Your task to perform on an android device: choose inbox layout in the gmail app Image 0: 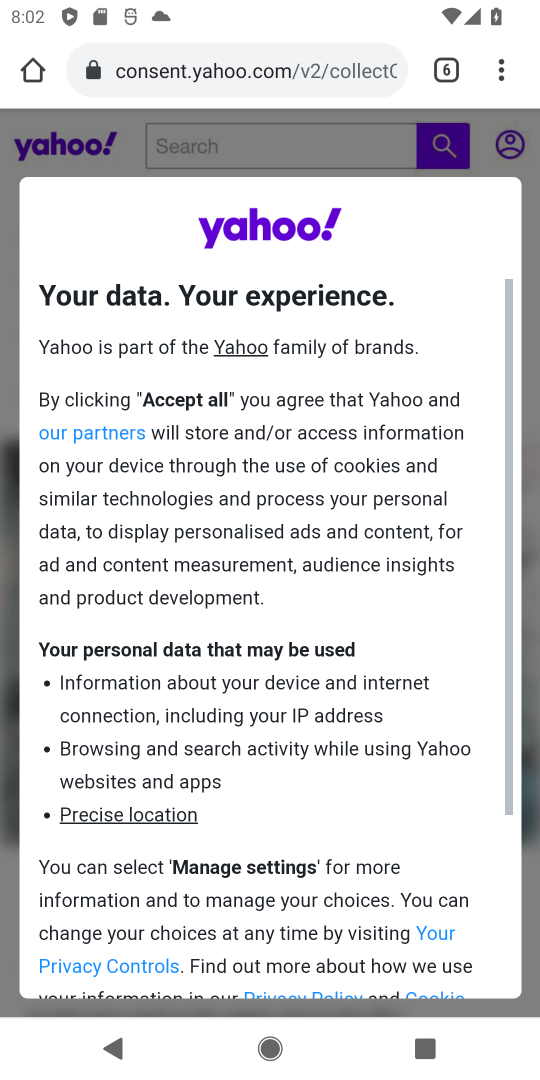
Step 0: press home button
Your task to perform on an android device: choose inbox layout in the gmail app Image 1: 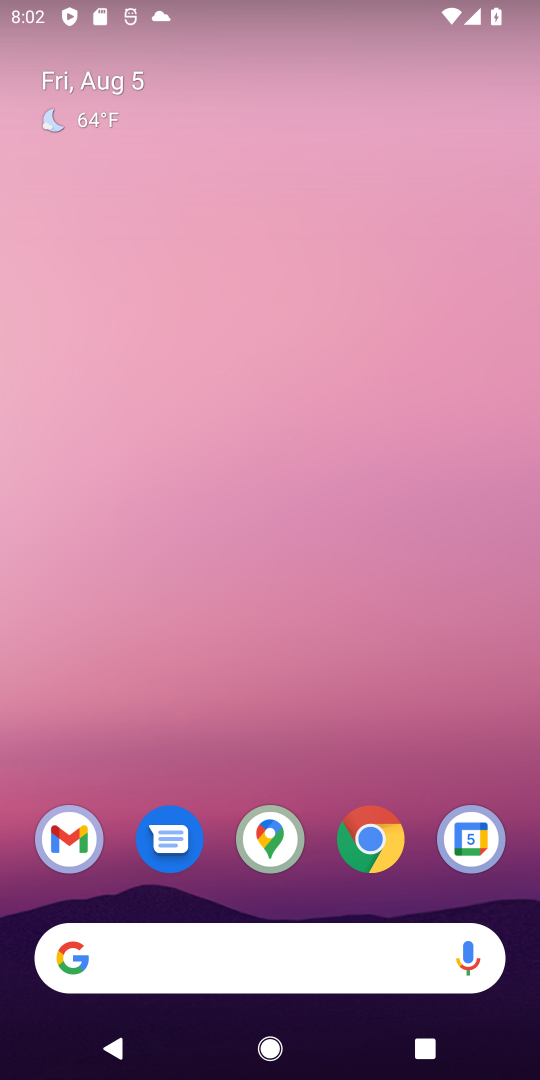
Step 1: drag from (318, 911) to (284, 137)
Your task to perform on an android device: choose inbox layout in the gmail app Image 2: 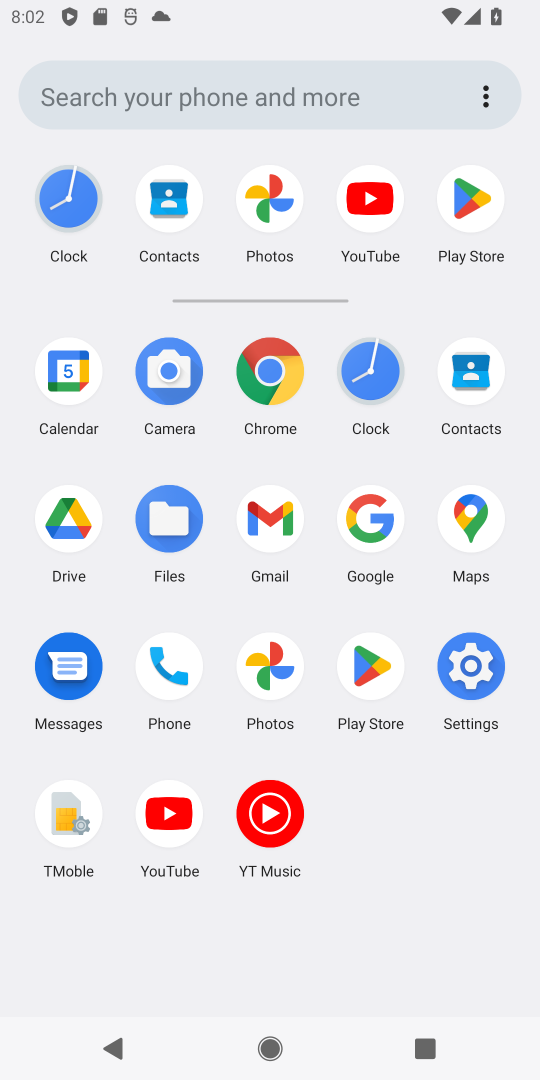
Step 2: click (267, 533)
Your task to perform on an android device: choose inbox layout in the gmail app Image 3: 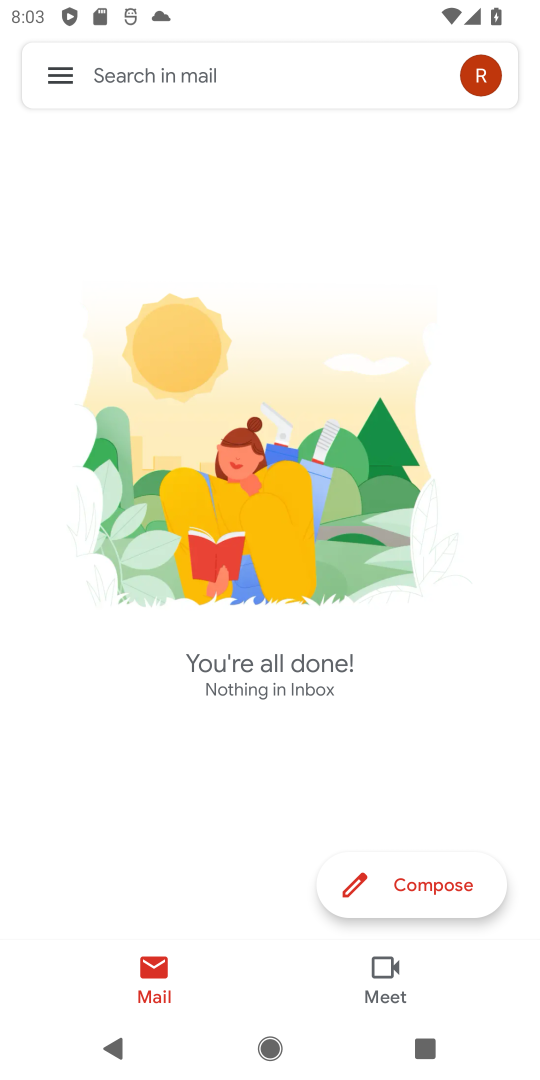
Step 3: click (59, 76)
Your task to perform on an android device: choose inbox layout in the gmail app Image 4: 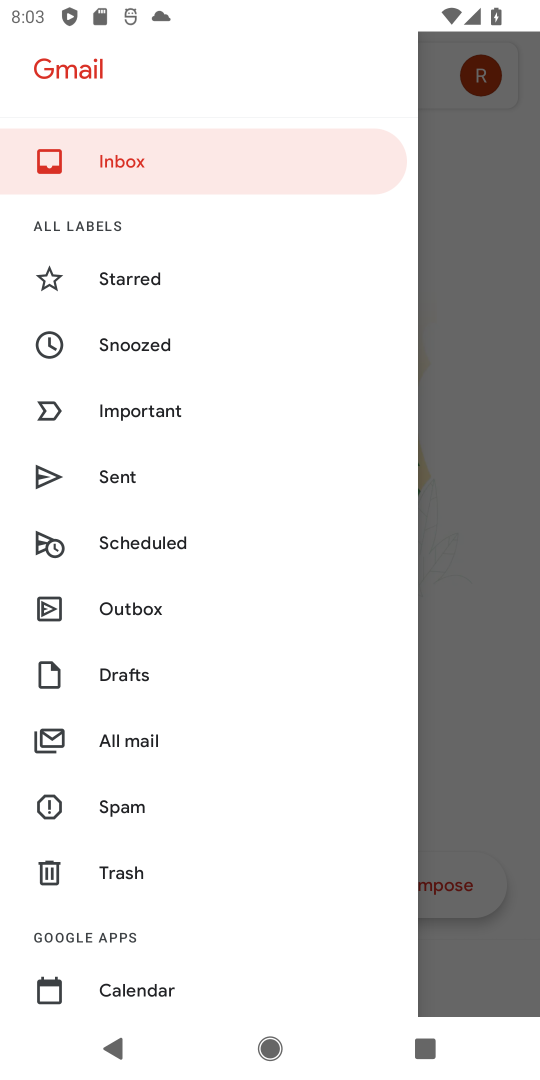
Step 4: drag from (116, 936) to (113, 430)
Your task to perform on an android device: choose inbox layout in the gmail app Image 5: 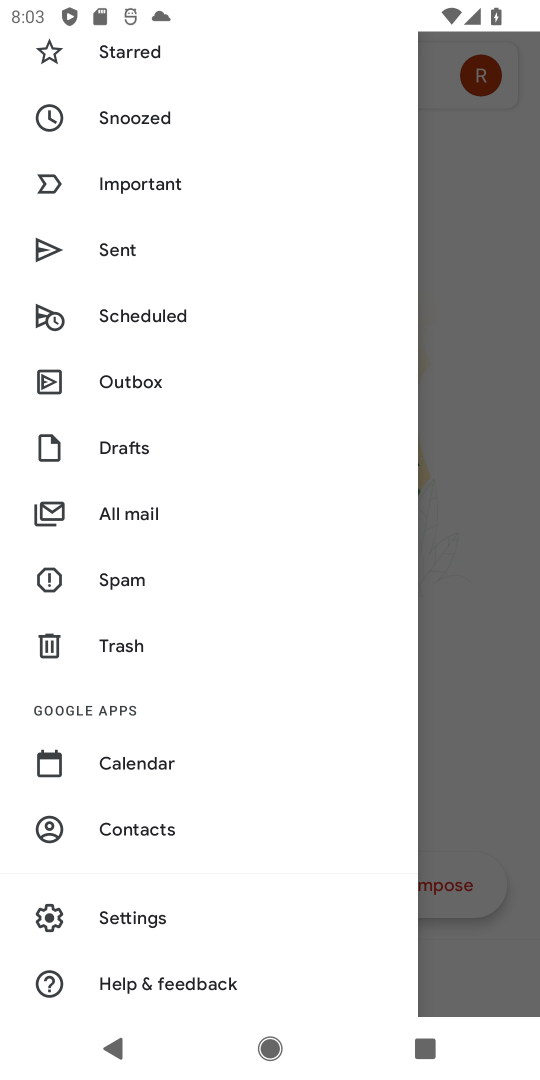
Step 5: click (171, 912)
Your task to perform on an android device: choose inbox layout in the gmail app Image 6: 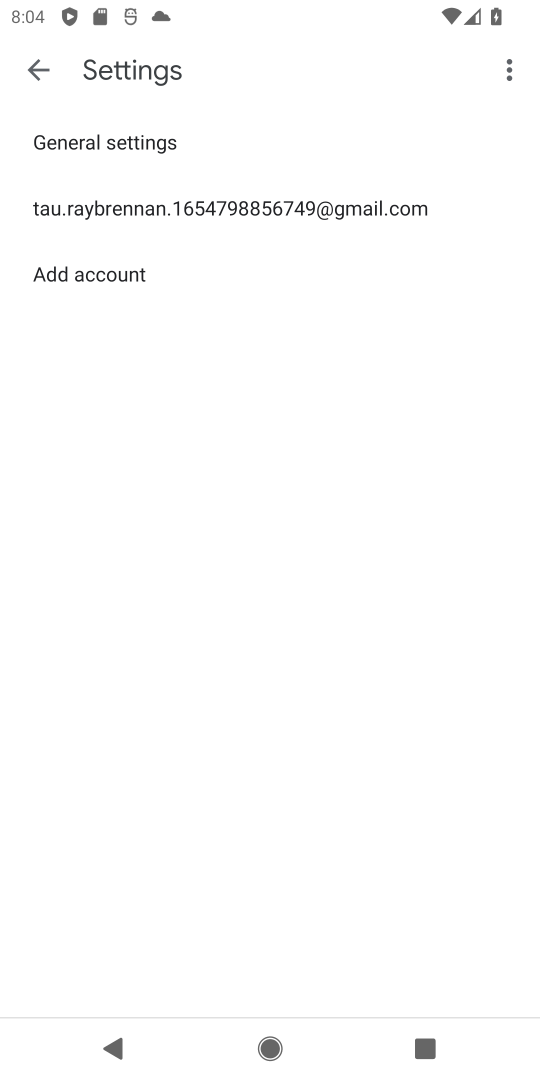
Step 6: click (187, 199)
Your task to perform on an android device: choose inbox layout in the gmail app Image 7: 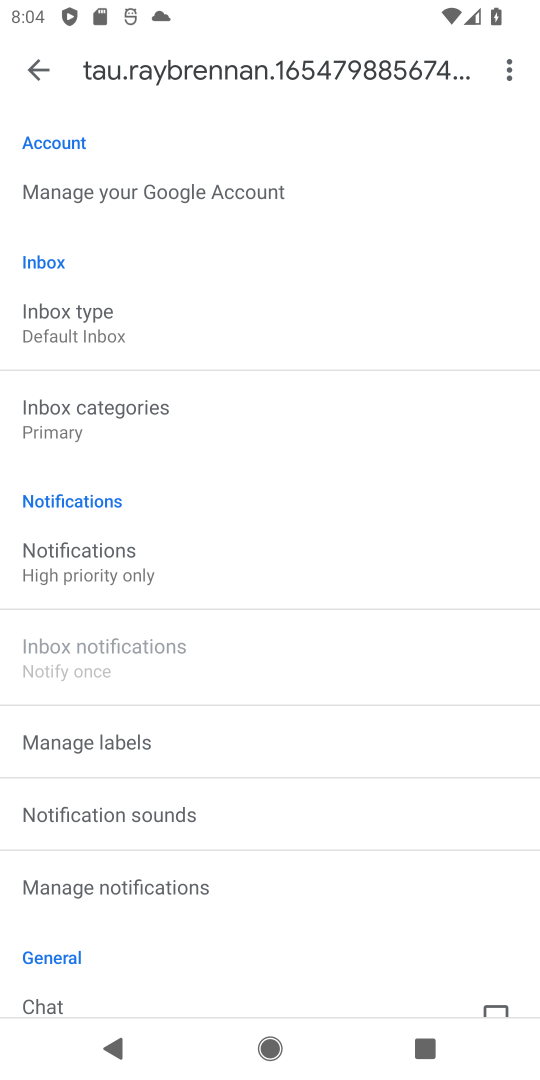
Step 7: click (89, 313)
Your task to perform on an android device: choose inbox layout in the gmail app Image 8: 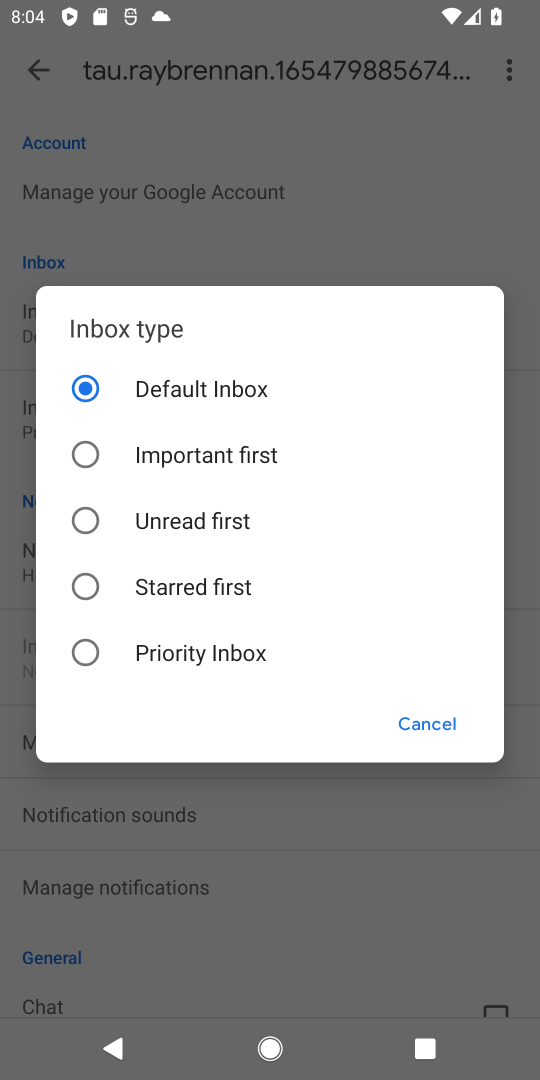
Step 8: click (87, 513)
Your task to perform on an android device: choose inbox layout in the gmail app Image 9: 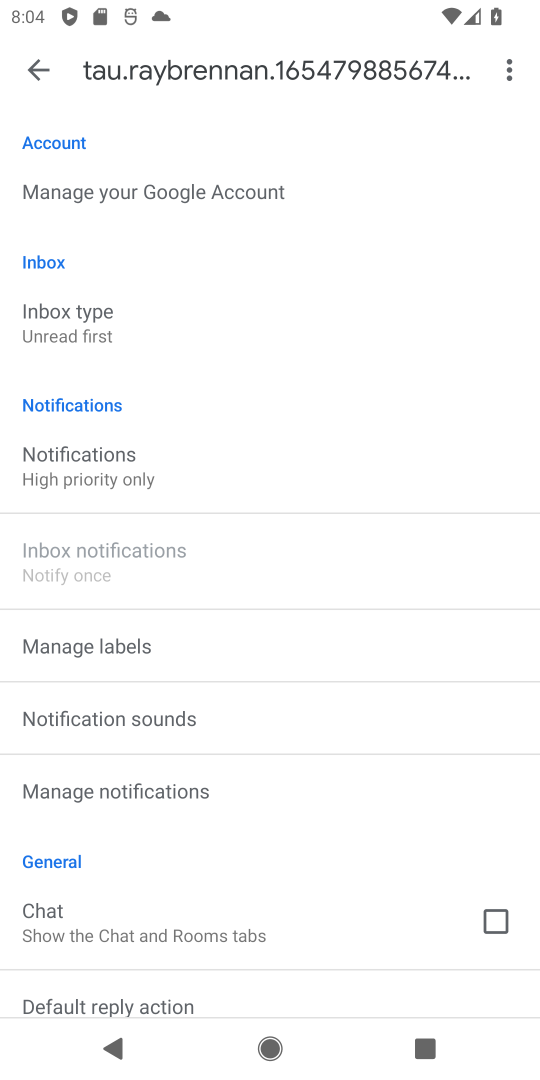
Step 9: task complete